Your task to perform on an android device: What is the news today? Image 0: 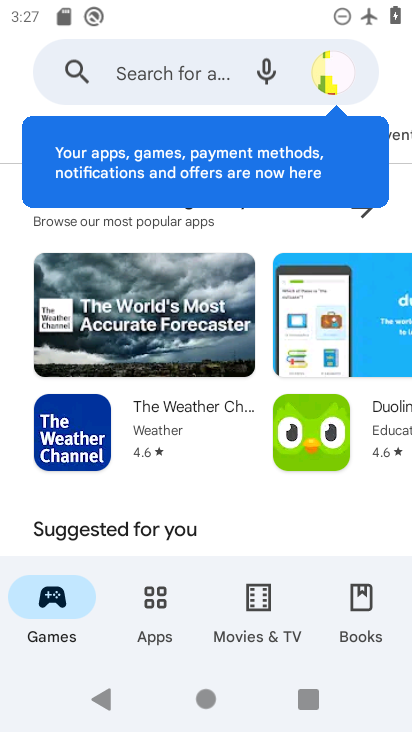
Step 0: press home button
Your task to perform on an android device: What is the news today? Image 1: 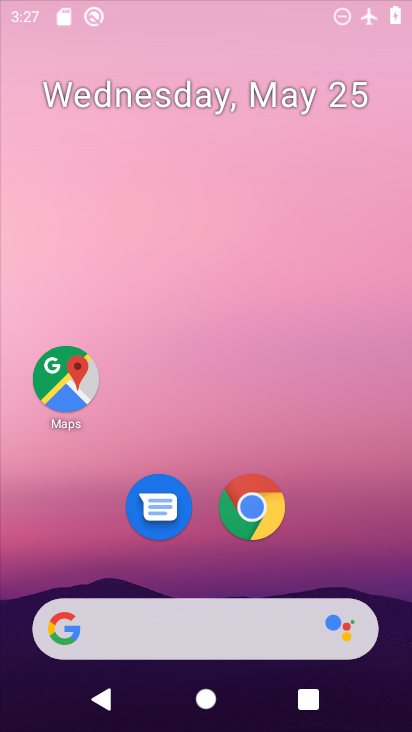
Step 1: drag from (203, 657) to (285, 131)
Your task to perform on an android device: What is the news today? Image 2: 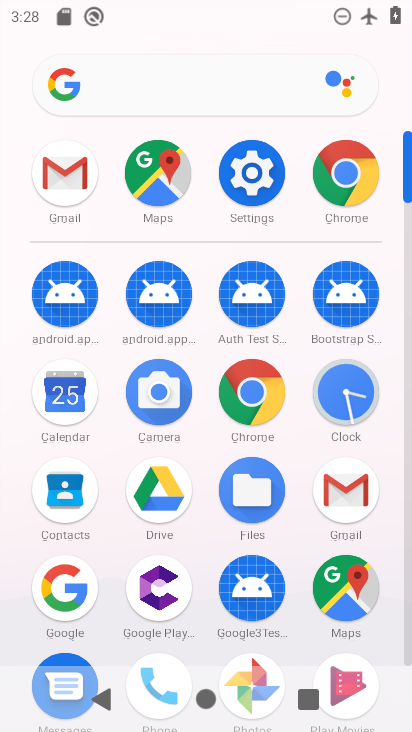
Step 2: click (61, 607)
Your task to perform on an android device: What is the news today? Image 3: 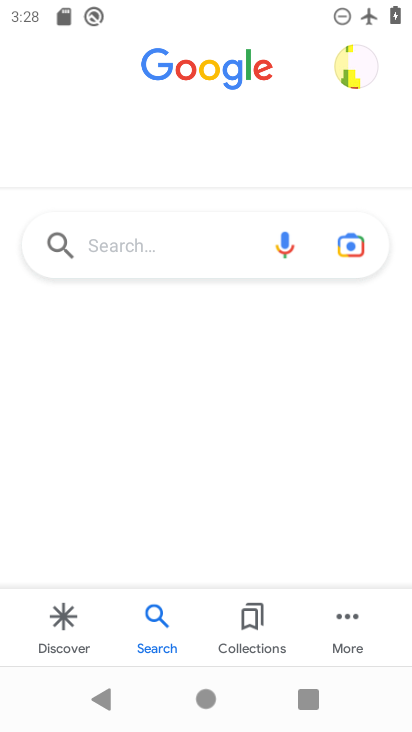
Step 3: click (192, 242)
Your task to perform on an android device: What is the news today? Image 4: 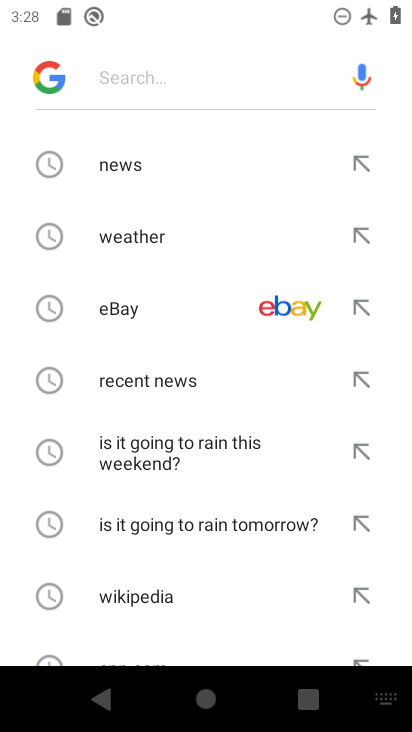
Step 4: click (196, 165)
Your task to perform on an android device: What is the news today? Image 5: 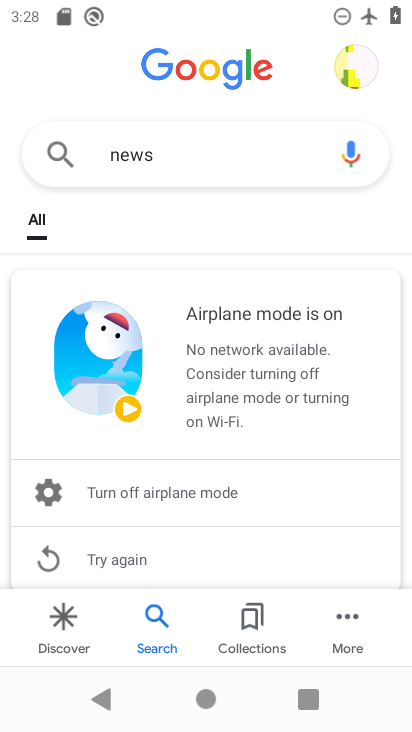
Step 5: task complete